Your task to perform on an android device: Is it going to rain tomorrow? Image 0: 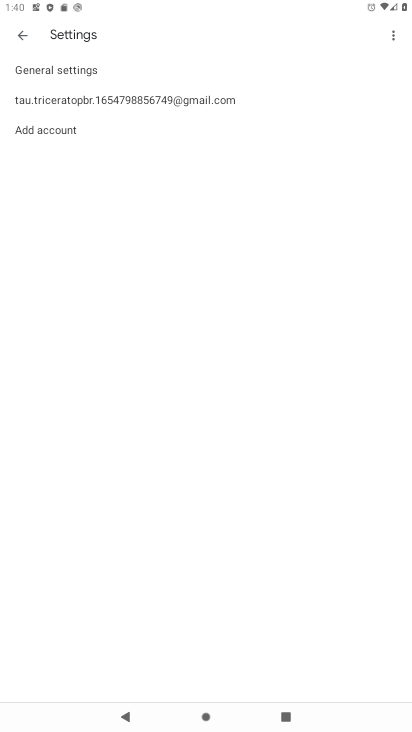
Step 0: press home button
Your task to perform on an android device: Is it going to rain tomorrow? Image 1: 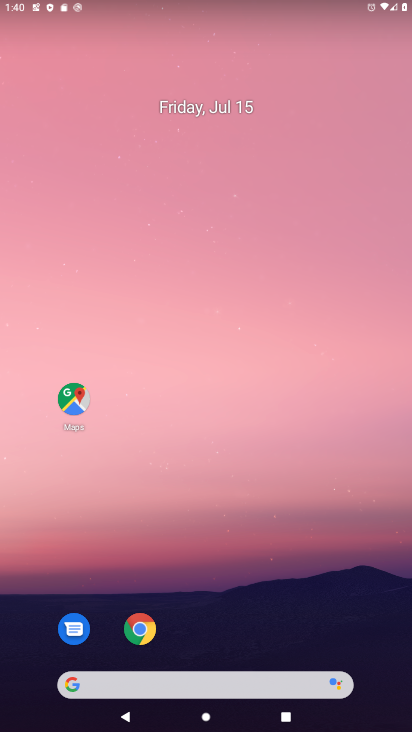
Step 1: drag from (294, 617) to (280, 130)
Your task to perform on an android device: Is it going to rain tomorrow? Image 2: 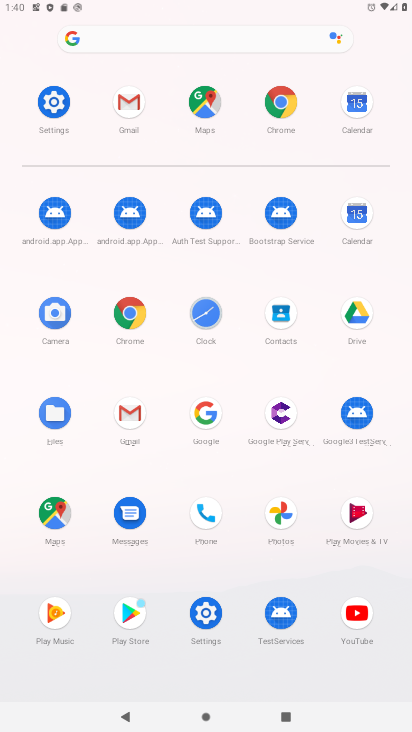
Step 2: click (278, 103)
Your task to perform on an android device: Is it going to rain tomorrow? Image 3: 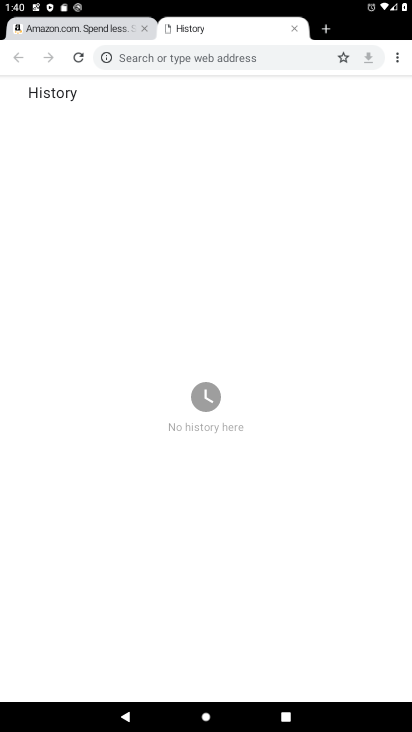
Step 3: click (231, 64)
Your task to perform on an android device: Is it going to rain tomorrow? Image 4: 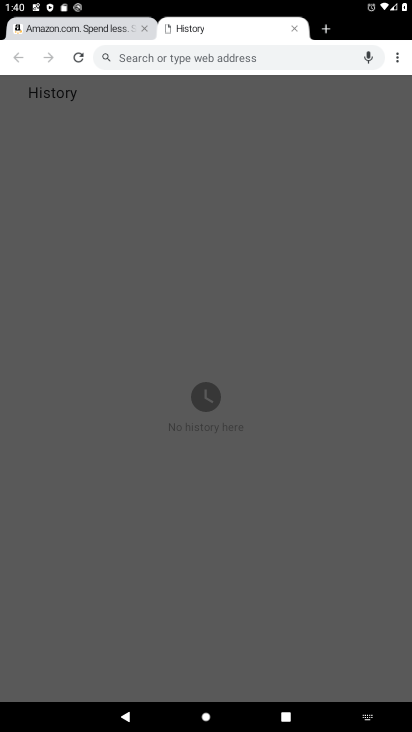
Step 4: type "weather"
Your task to perform on an android device: Is it going to rain tomorrow? Image 5: 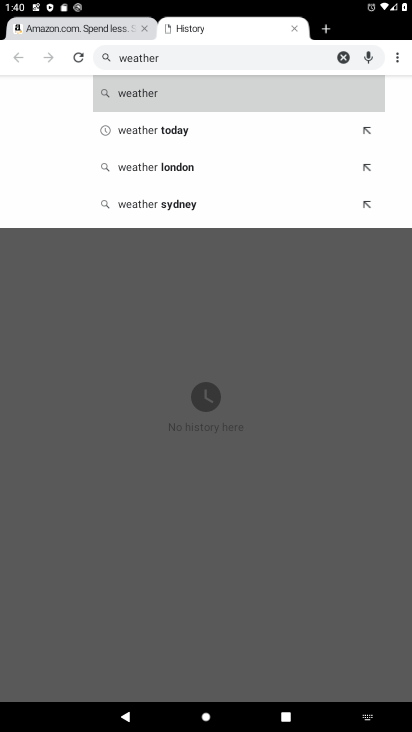
Step 5: click (134, 93)
Your task to perform on an android device: Is it going to rain tomorrow? Image 6: 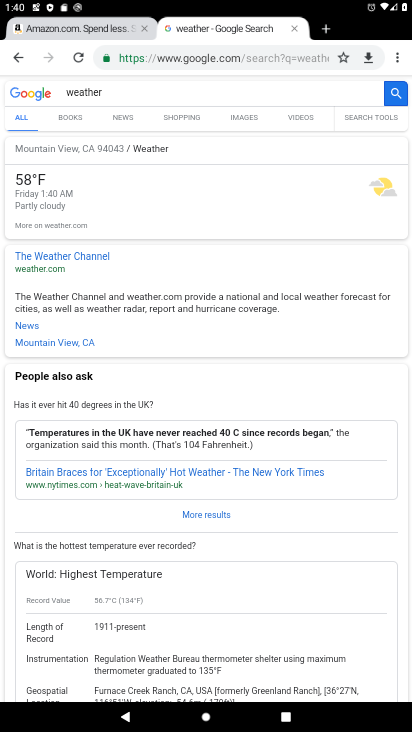
Step 6: click (170, 89)
Your task to perform on an android device: Is it going to rain tomorrow? Image 7: 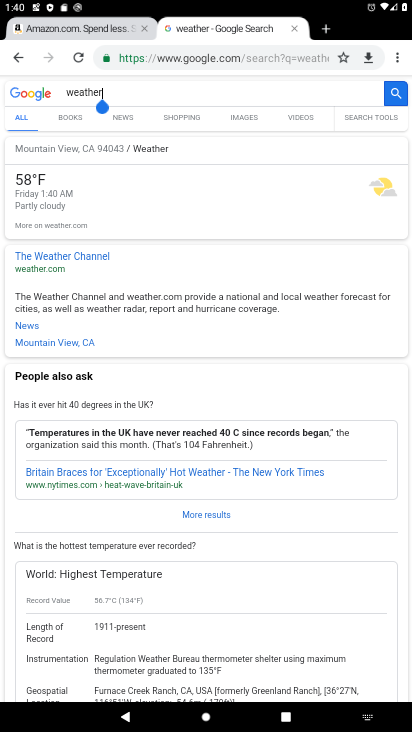
Step 7: type " tommorow"
Your task to perform on an android device: Is it going to rain tomorrow? Image 8: 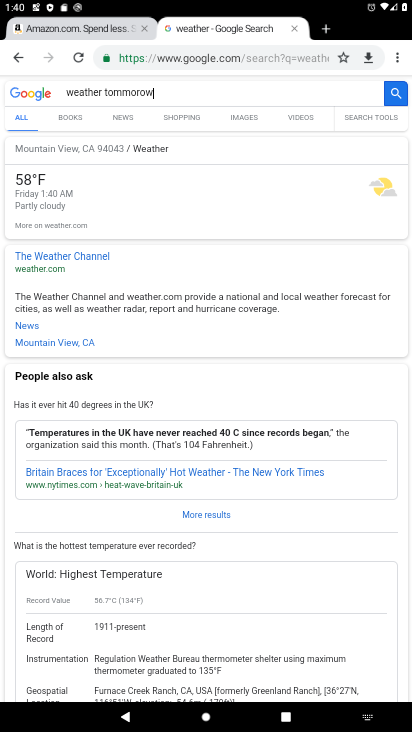
Step 8: click (392, 88)
Your task to perform on an android device: Is it going to rain tomorrow? Image 9: 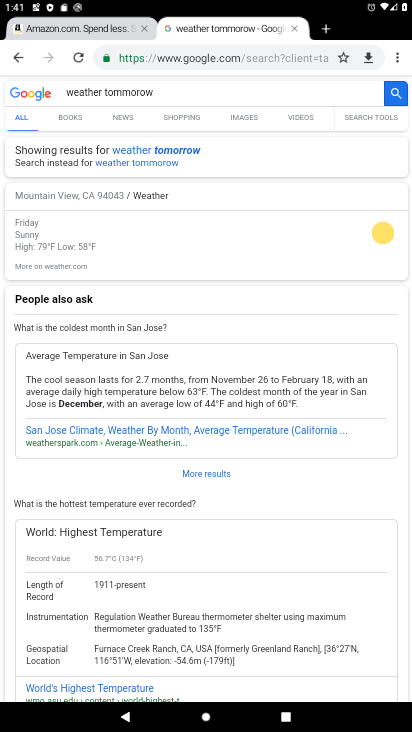
Step 9: click (173, 144)
Your task to perform on an android device: Is it going to rain tomorrow? Image 10: 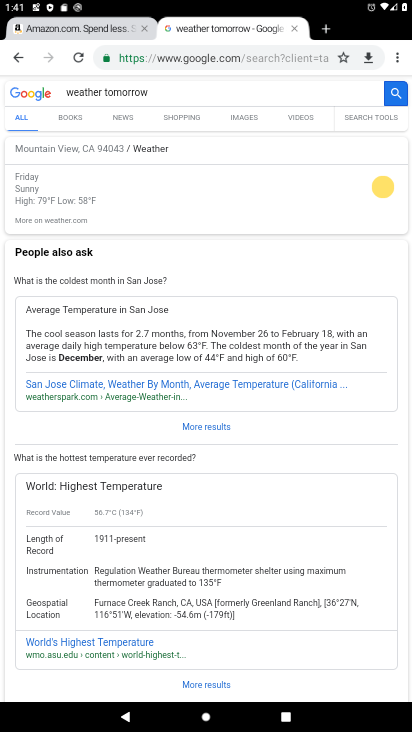
Step 10: click (47, 215)
Your task to perform on an android device: Is it going to rain tomorrow? Image 11: 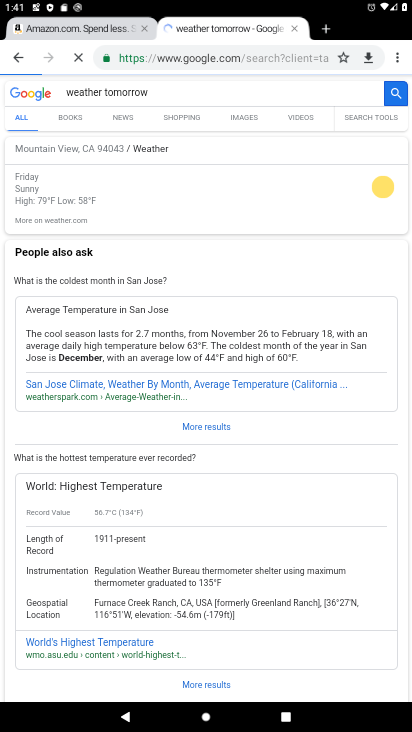
Step 11: task complete